Your task to perform on an android device: Go to network settings Image 0: 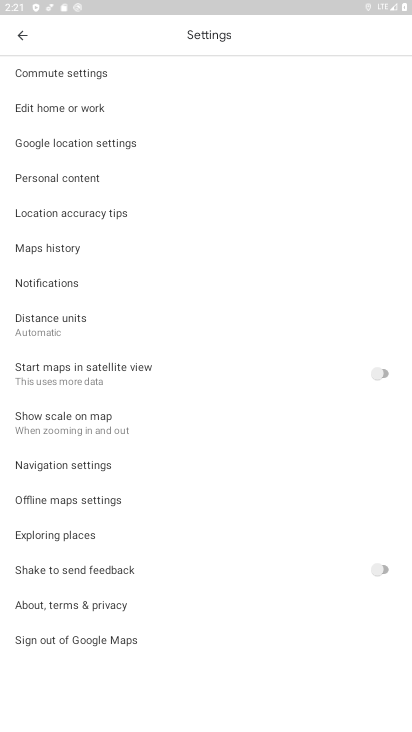
Step 0: click (270, 535)
Your task to perform on an android device: Go to network settings Image 1: 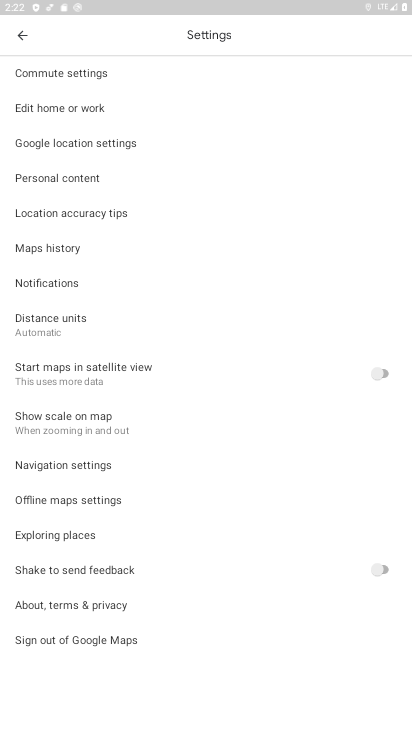
Step 1: press home button
Your task to perform on an android device: Go to network settings Image 2: 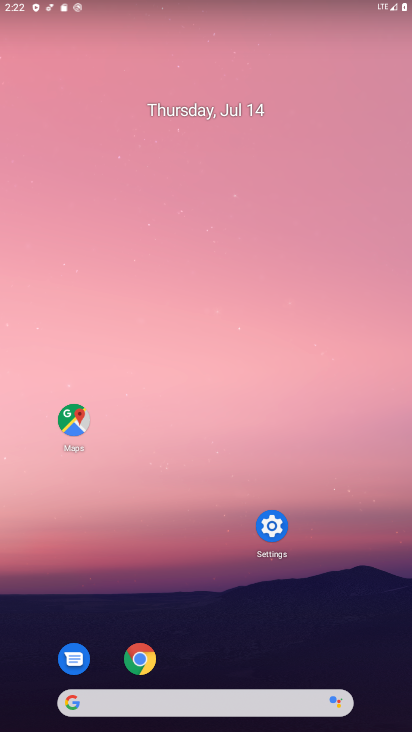
Step 2: click (265, 534)
Your task to perform on an android device: Go to network settings Image 3: 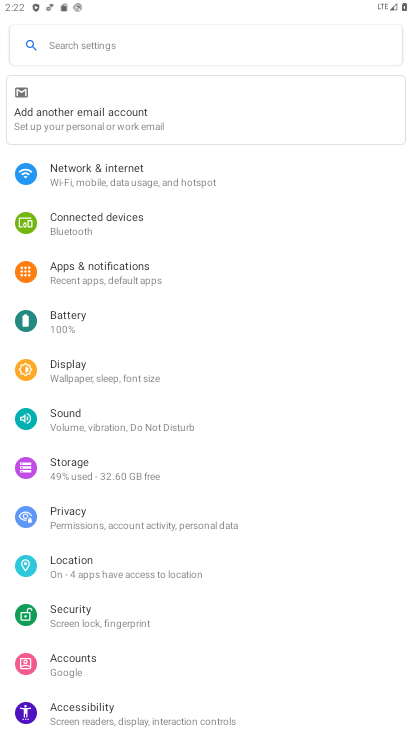
Step 3: click (107, 181)
Your task to perform on an android device: Go to network settings Image 4: 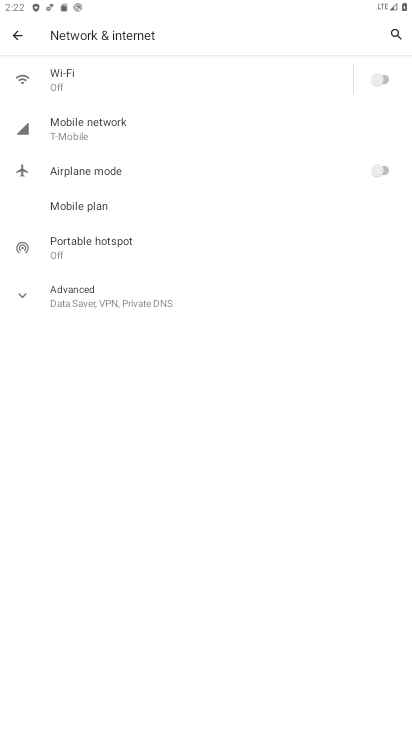
Step 4: task complete